Your task to perform on an android device: all mails in gmail Image 0: 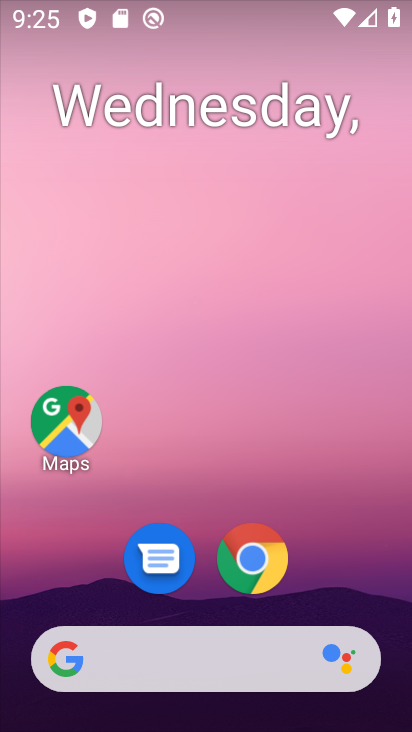
Step 0: drag from (99, 471) to (313, 97)
Your task to perform on an android device: all mails in gmail Image 1: 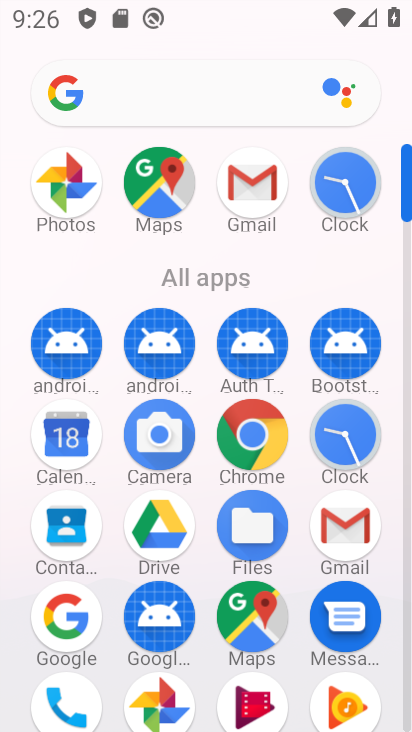
Step 1: click (354, 534)
Your task to perform on an android device: all mails in gmail Image 2: 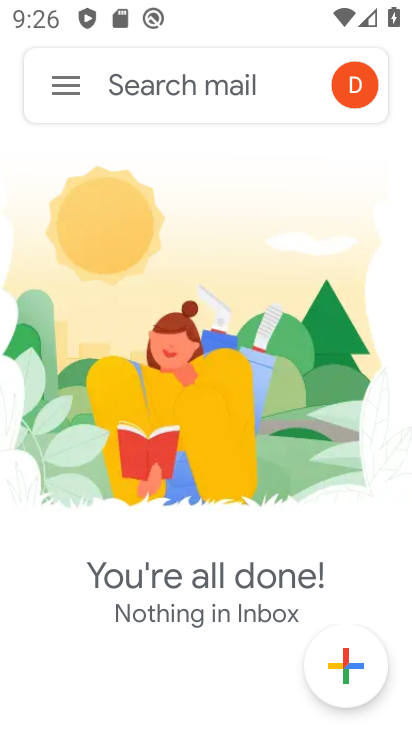
Step 2: click (70, 88)
Your task to perform on an android device: all mails in gmail Image 3: 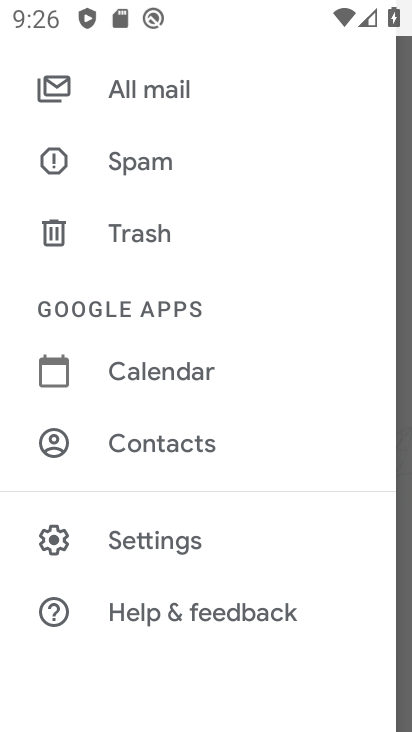
Step 3: click (129, 90)
Your task to perform on an android device: all mails in gmail Image 4: 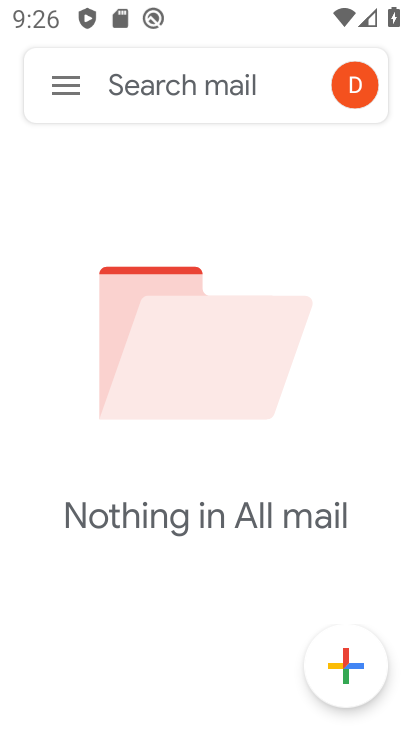
Step 4: task complete